Your task to perform on an android device: Open Google Chrome and open the bookmarks view Image 0: 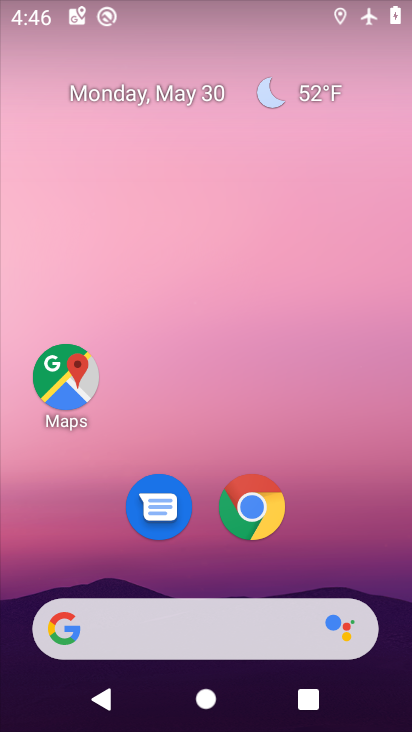
Step 0: press home button
Your task to perform on an android device: Open Google Chrome and open the bookmarks view Image 1: 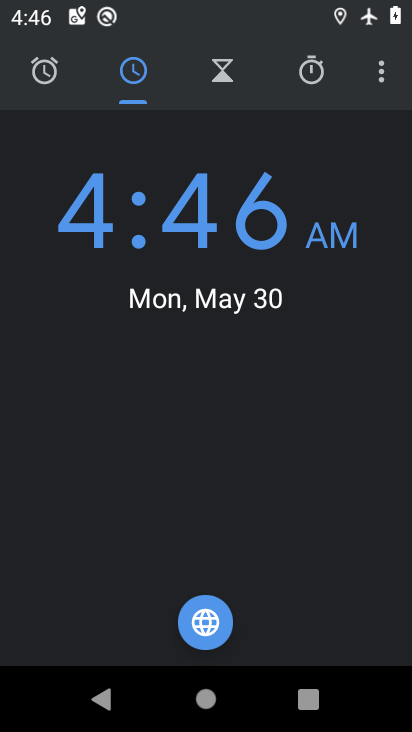
Step 1: drag from (340, 540) to (164, 119)
Your task to perform on an android device: Open Google Chrome and open the bookmarks view Image 2: 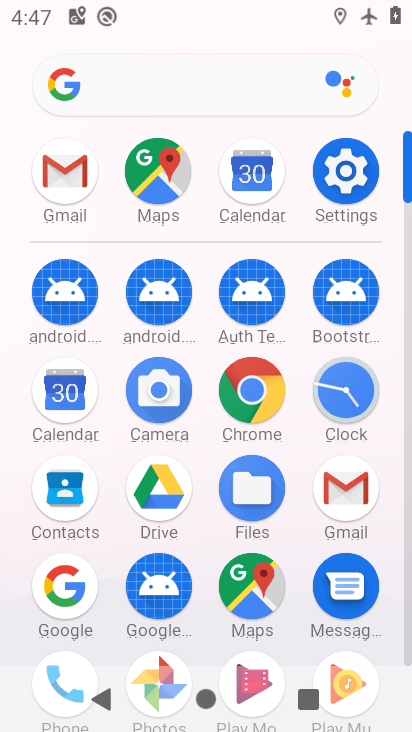
Step 2: click (263, 373)
Your task to perform on an android device: Open Google Chrome and open the bookmarks view Image 3: 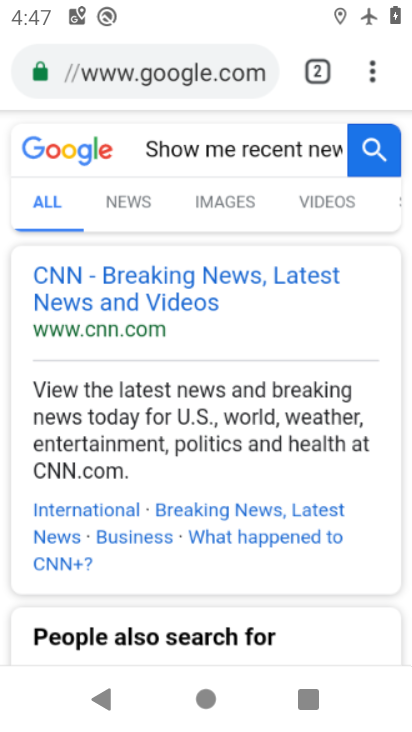
Step 3: task complete